Your task to perform on an android device: check storage Image 0: 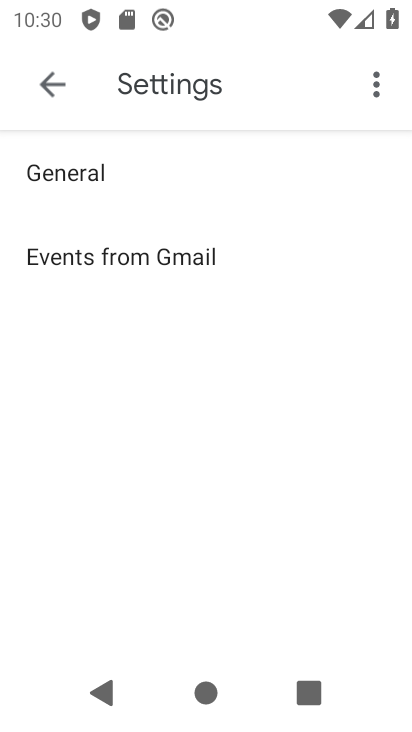
Step 0: press home button
Your task to perform on an android device: check storage Image 1: 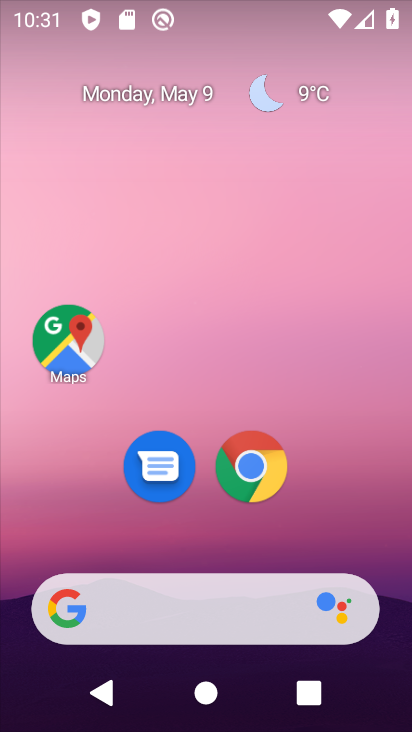
Step 1: drag from (357, 555) to (285, 80)
Your task to perform on an android device: check storage Image 2: 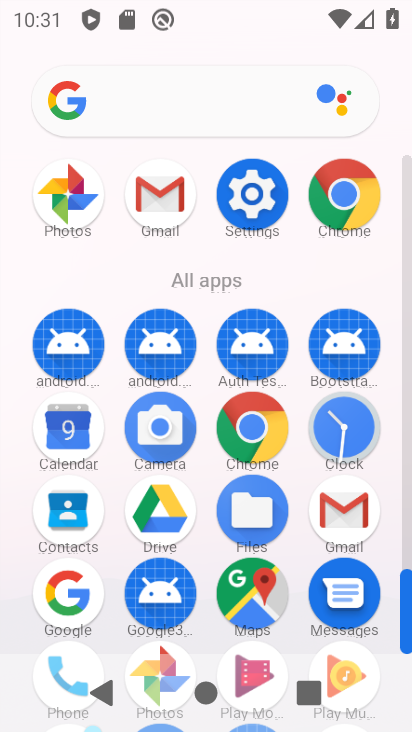
Step 2: click (250, 214)
Your task to perform on an android device: check storage Image 3: 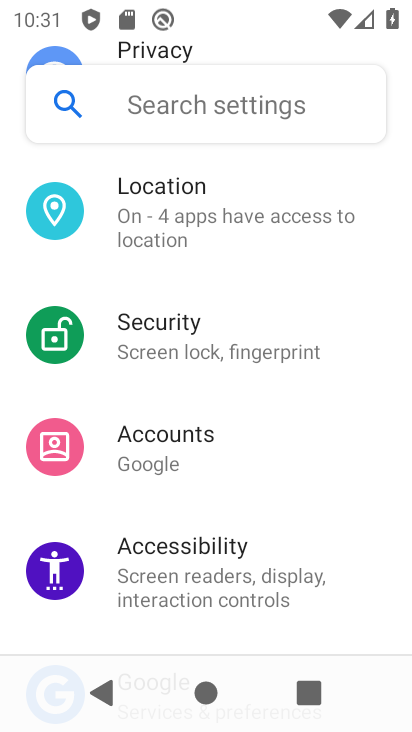
Step 3: drag from (210, 490) to (174, 577)
Your task to perform on an android device: check storage Image 4: 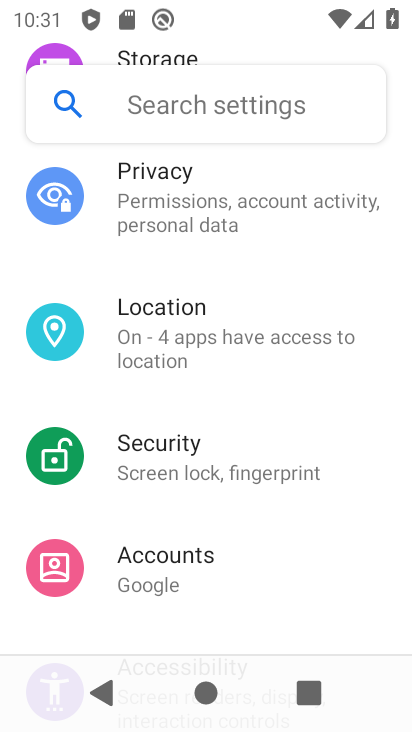
Step 4: drag from (159, 260) to (175, 557)
Your task to perform on an android device: check storage Image 5: 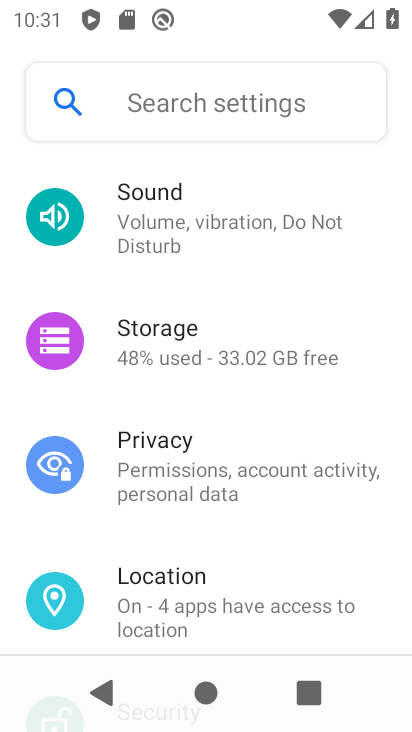
Step 5: click (173, 340)
Your task to perform on an android device: check storage Image 6: 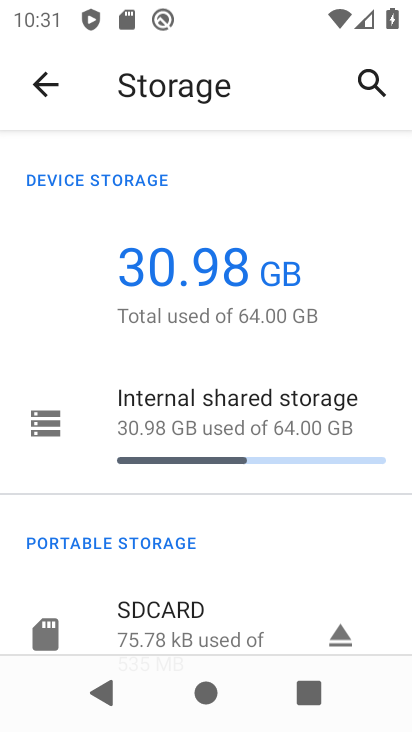
Step 6: task complete